Your task to perform on an android device: Open sound settings Image 0: 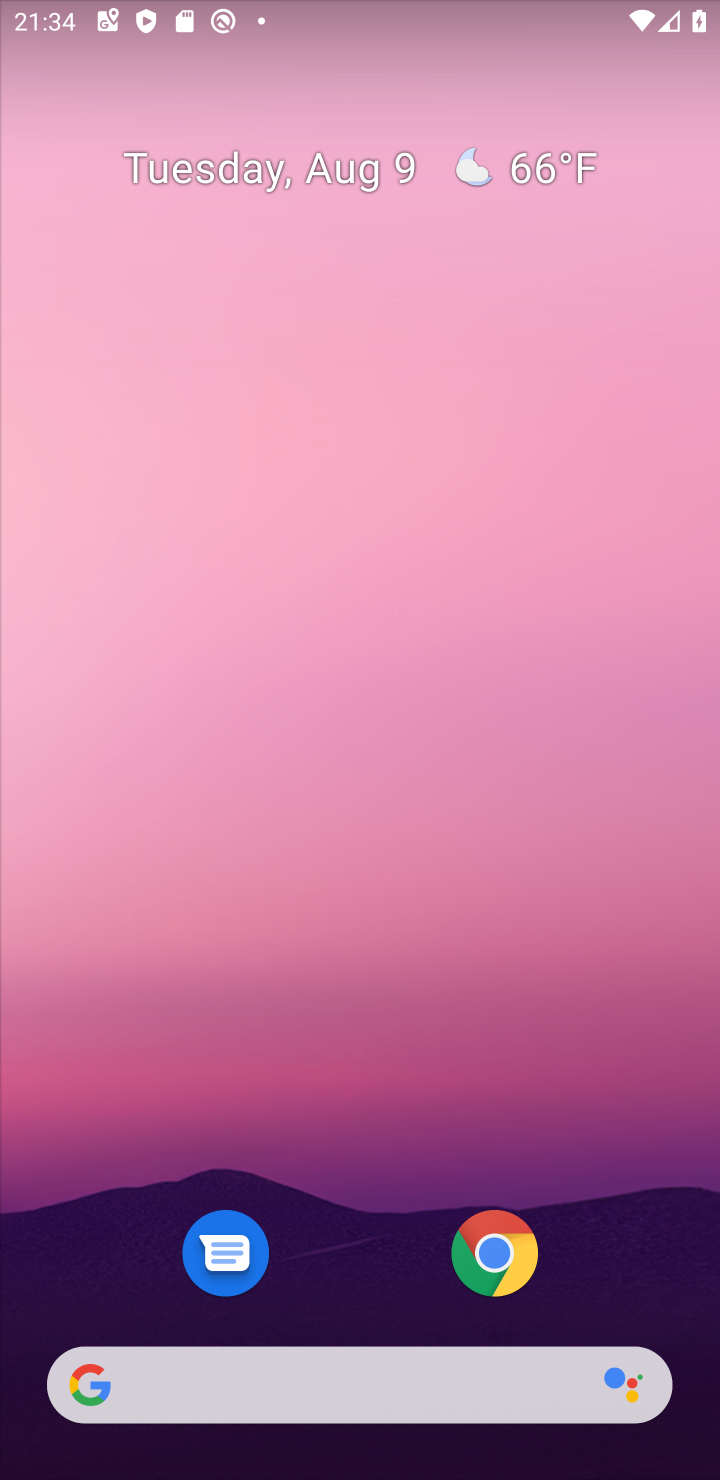
Step 0: drag from (542, 956) to (720, 302)
Your task to perform on an android device: Open sound settings Image 1: 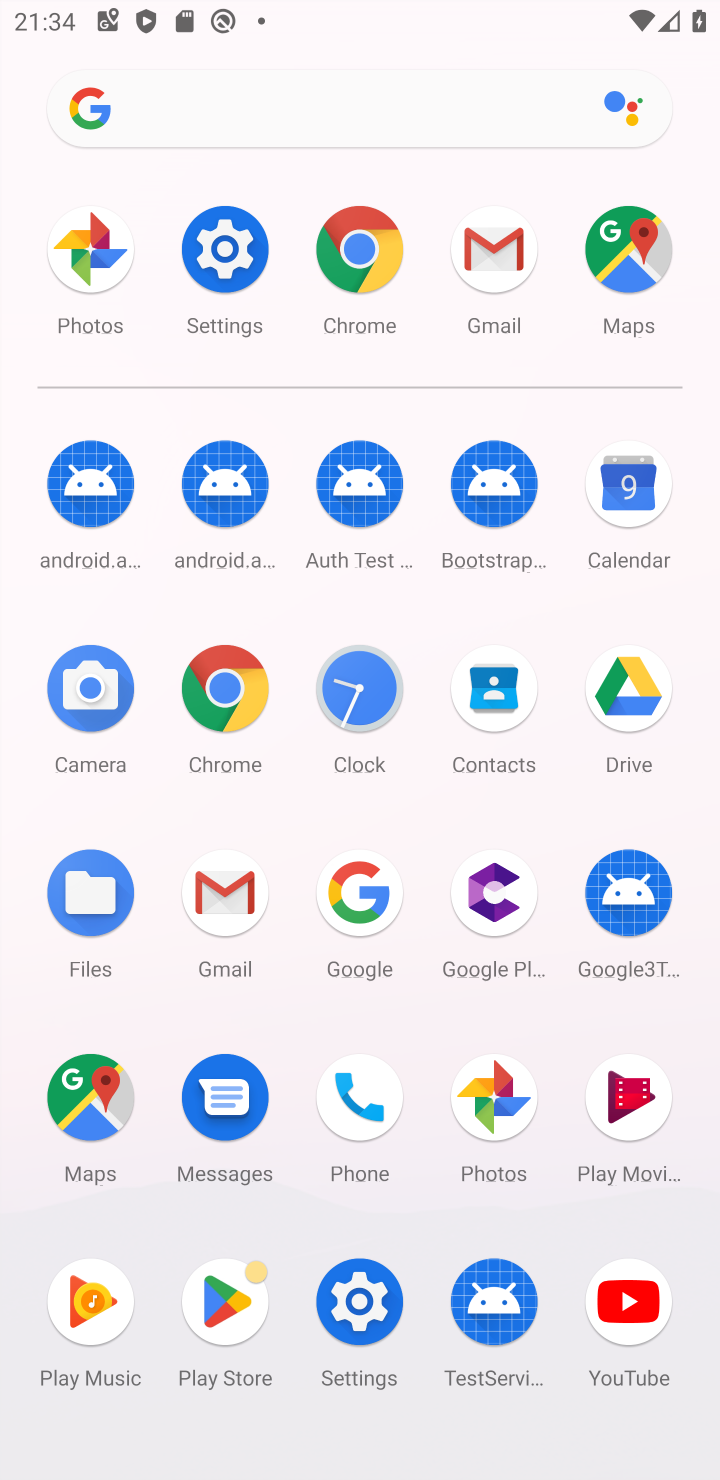
Step 1: click (343, 1307)
Your task to perform on an android device: Open sound settings Image 2: 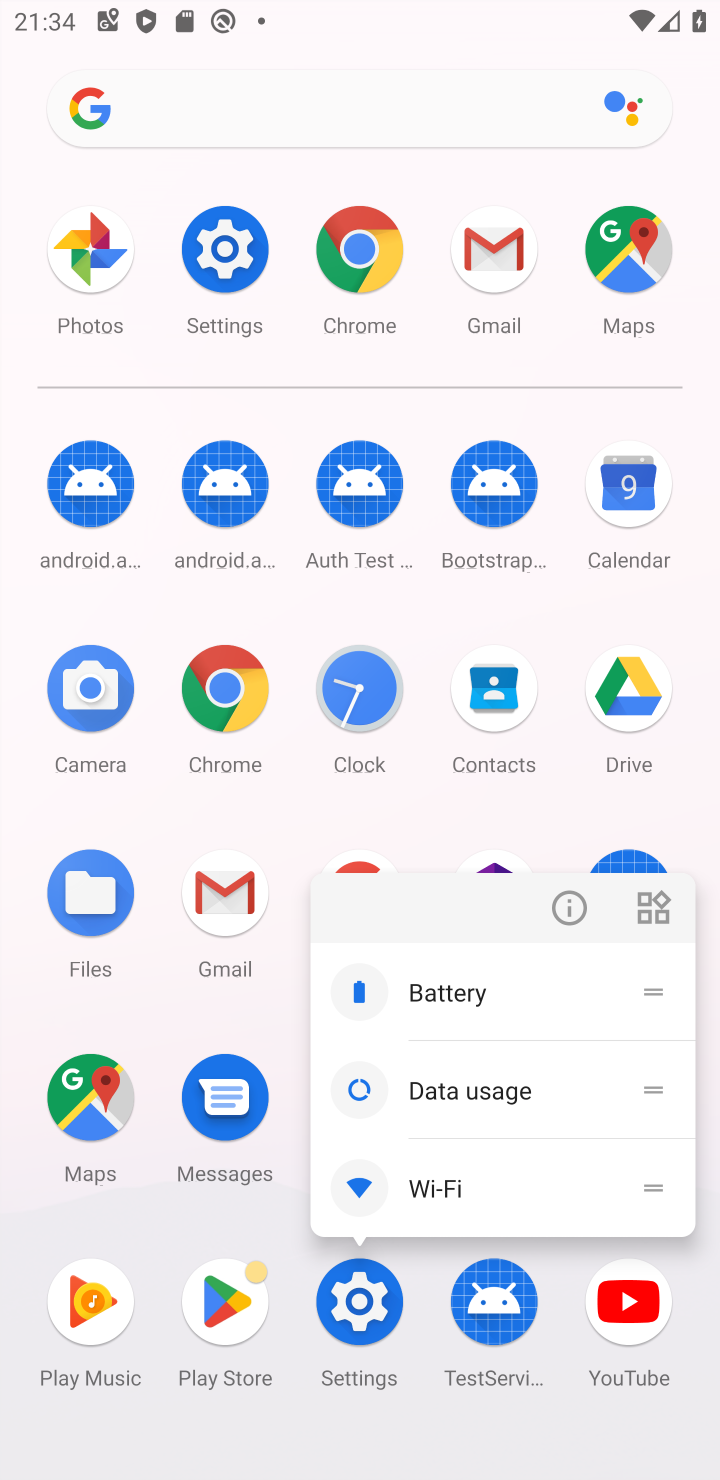
Step 2: click (347, 1292)
Your task to perform on an android device: Open sound settings Image 3: 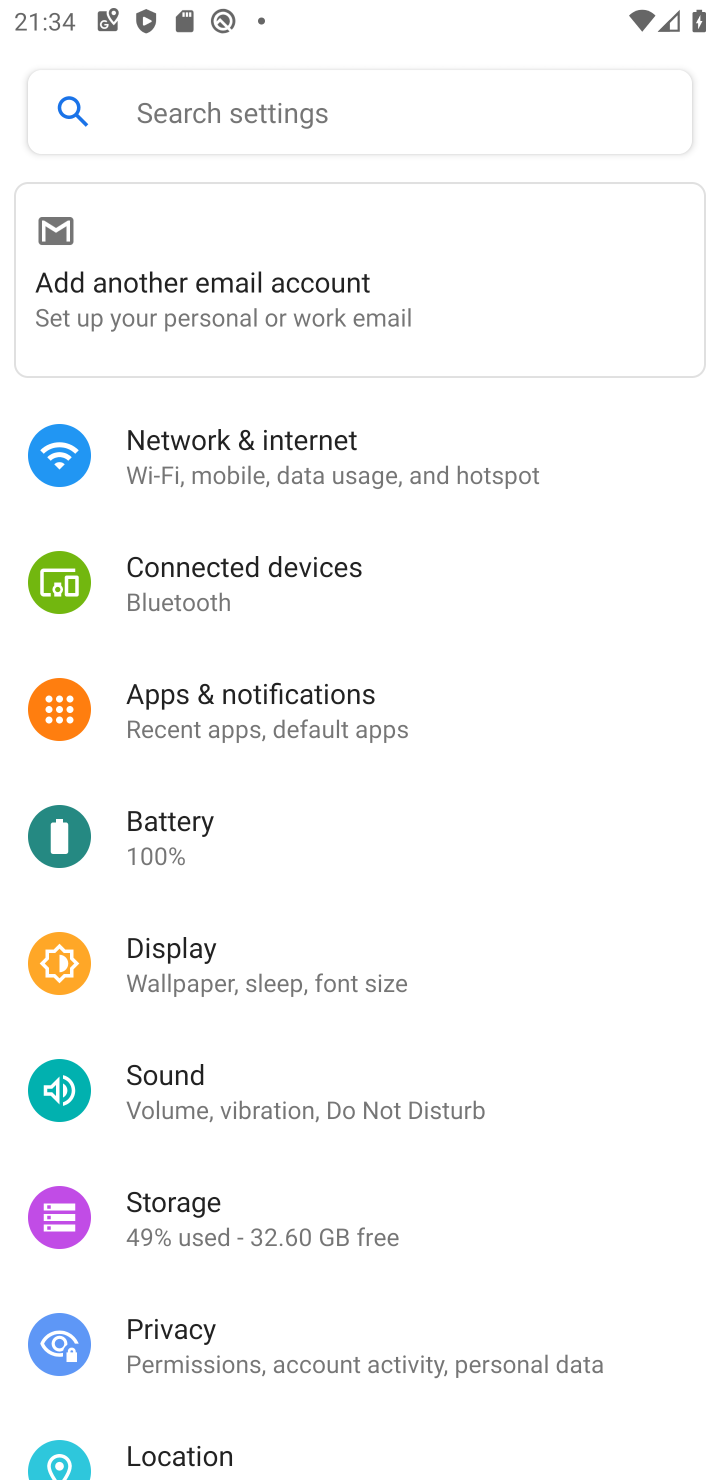
Step 3: click (213, 1069)
Your task to perform on an android device: Open sound settings Image 4: 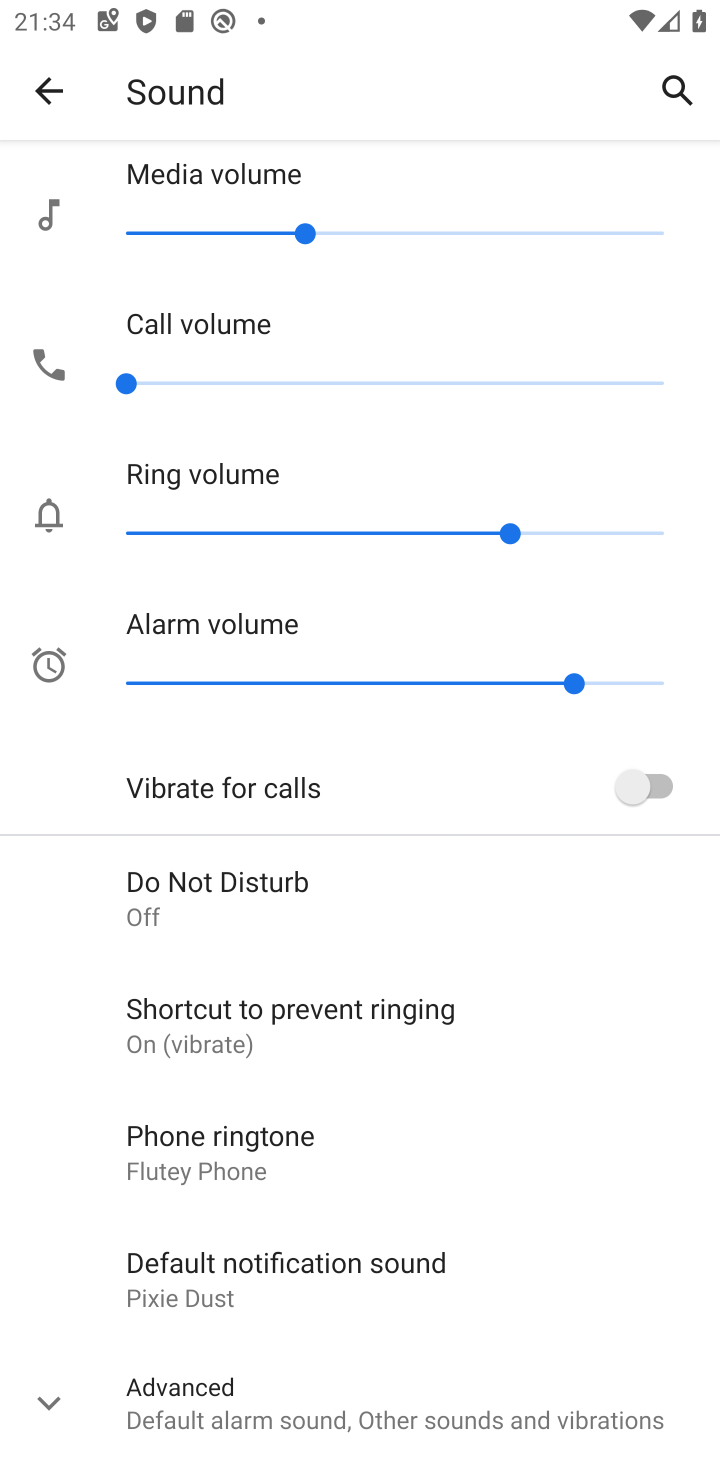
Step 4: task complete